Your task to perform on an android device: Open accessibility settings Image 0: 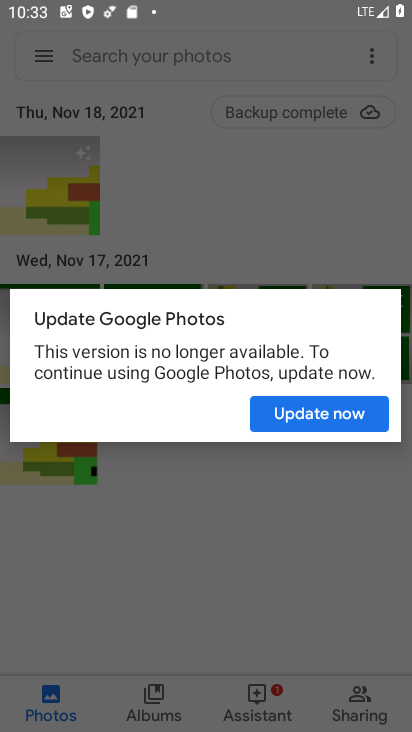
Step 0: press home button
Your task to perform on an android device: Open accessibility settings Image 1: 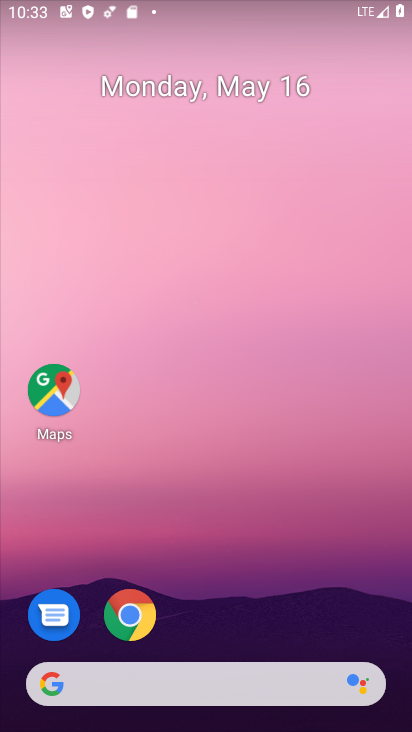
Step 1: drag from (183, 649) to (266, 40)
Your task to perform on an android device: Open accessibility settings Image 2: 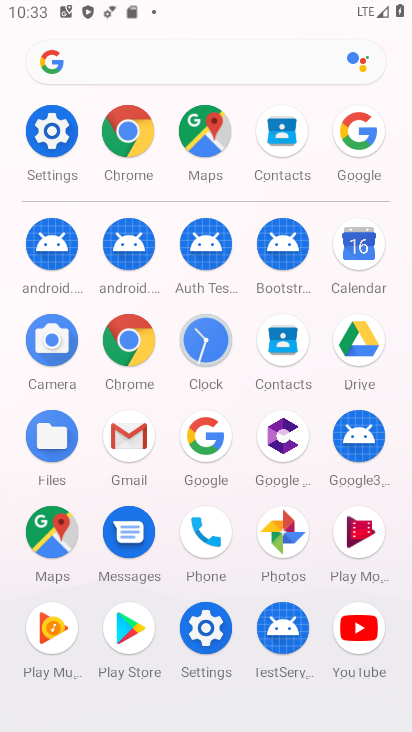
Step 2: click (51, 160)
Your task to perform on an android device: Open accessibility settings Image 3: 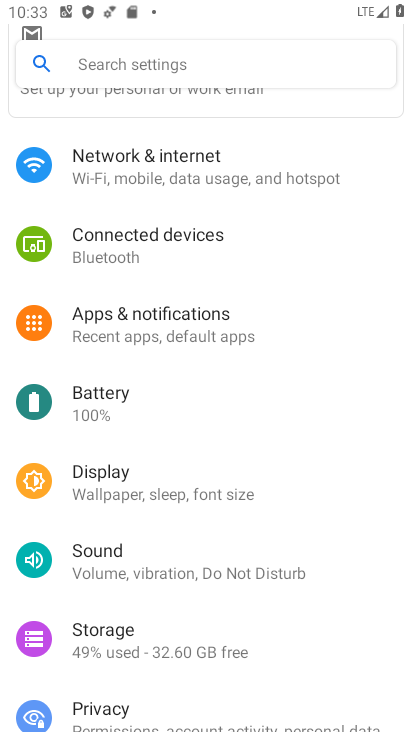
Step 3: drag from (197, 370) to (230, 217)
Your task to perform on an android device: Open accessibility settings Image 4: 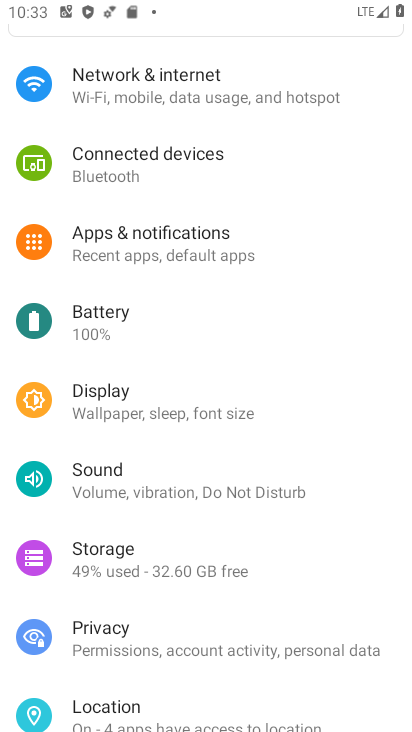
Step 4: drag from (230, 582) to (278, 272)
Your task to perform on an android device: Open accessibility settings Image 5: 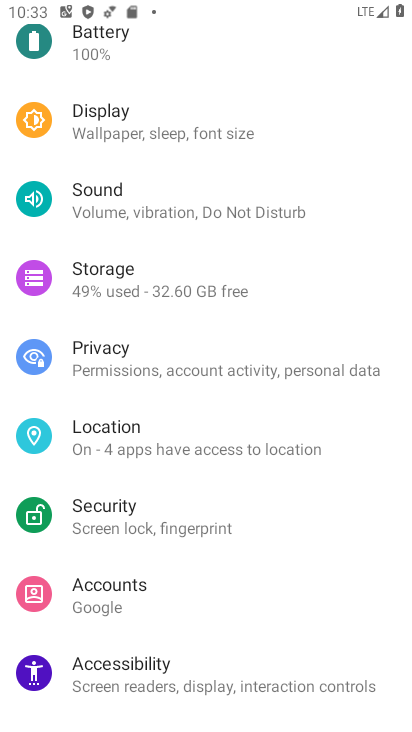
Step 5: click (190, 693)
Your task to perform on an android device: Open accessibility settings Image 6: 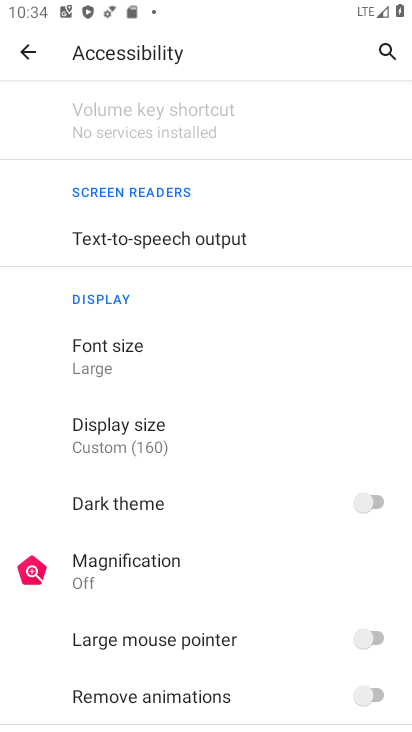
Step 6: task complete